Your task to perform on an android device: Go to network settings Image 0: 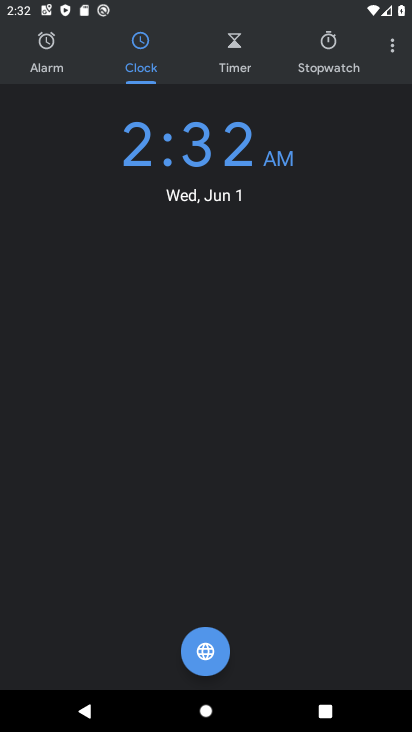
Step 0: press back button
Your task to perform on an android device: Go to network settings Image 1: 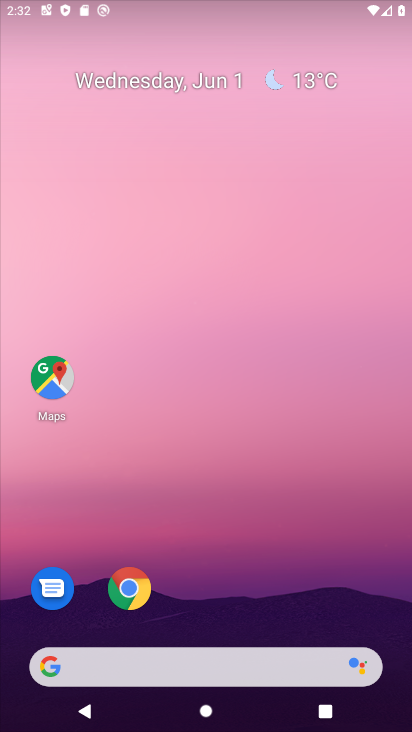
Step 1: drag from (196, 531) to (265, 94)
Your task to perform on an android device: Go to network settings Image 2: 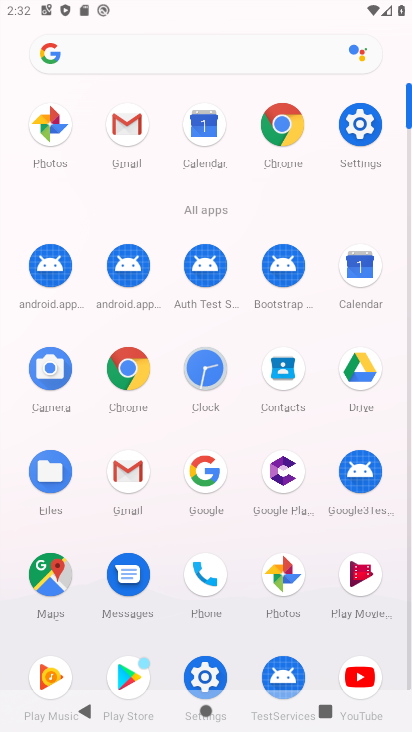
Step 2: click (347, 130)
Your task to perform on an android device: Go to network settings Image 3: 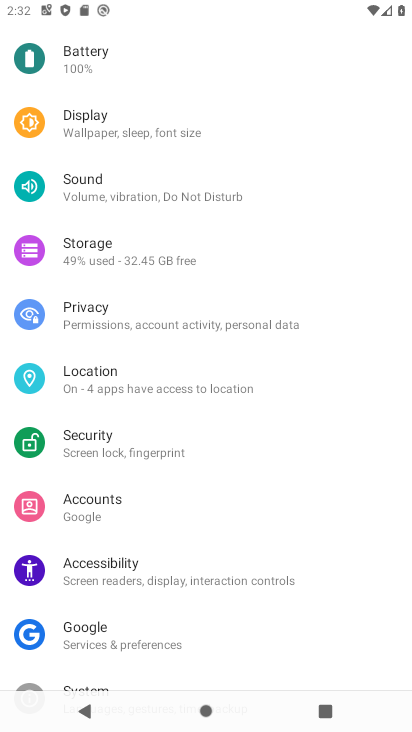
Step 3: drag from (239, 149) to (209, 650)
Your task to perform on an android device: Go to network settings Image 4: 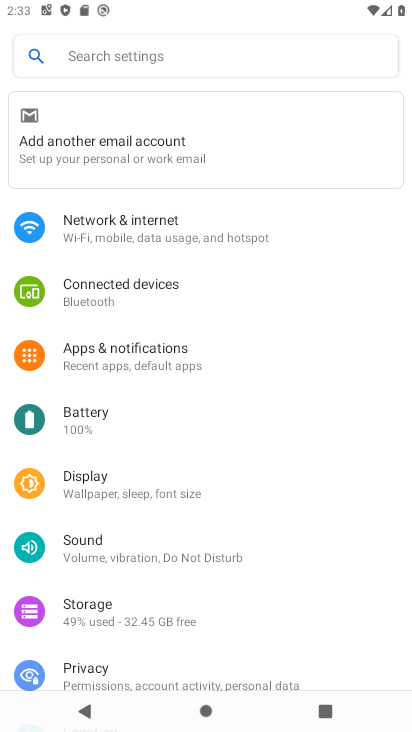
Step 4: click (157, 235)
Your task to perform on an android device: Go to network settings Image 5: 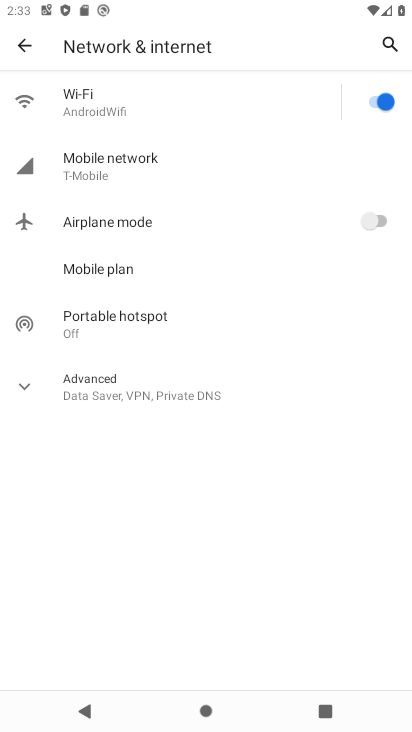
Step 5: task complete